Your task to perform on an android device: Open notification settings Image 0: 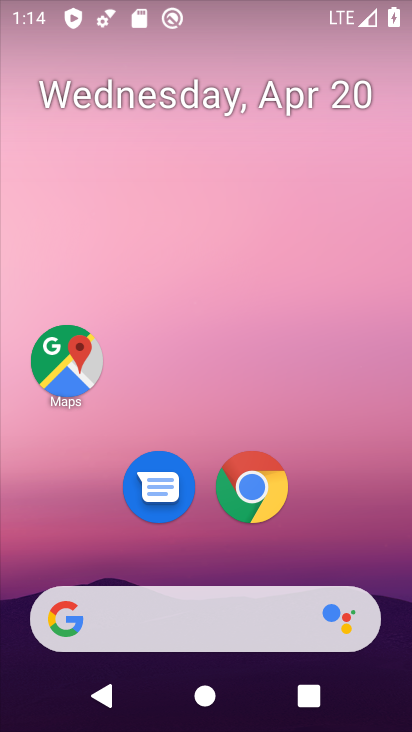
Step 0: drag from (371, 558) to (248, 22)
Your task to perform on an android device: Open notification settings Image 1: 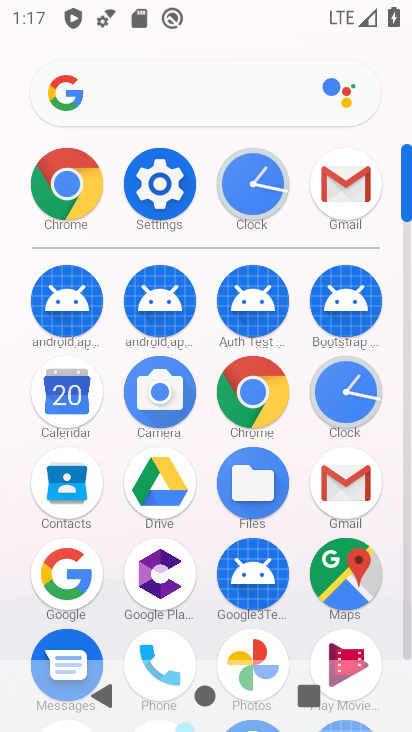
Step 1: click (155, 181)
Your task to perform on an android device: Open notification settings Image 2: 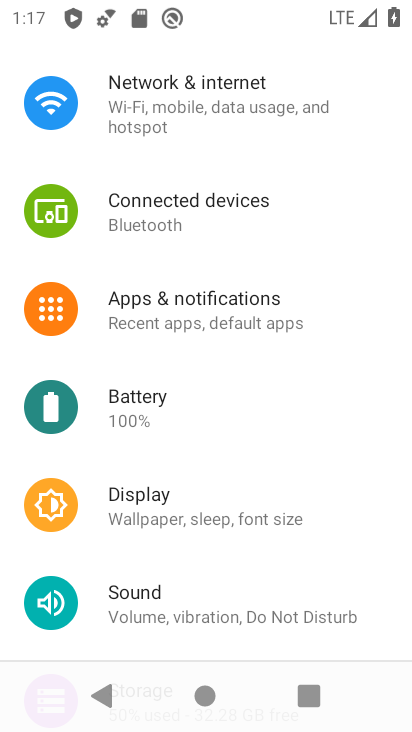
Step 2: drag from (151, 621) to (232, 319)
Your task to perform on an android device: Open notification settings Image 3: 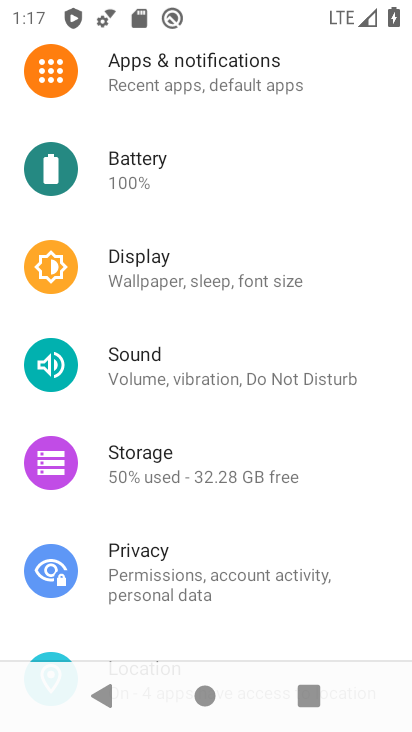
Step 3: click (245, 96)
Your task to perform on an android device: Open notification settings Image 4: 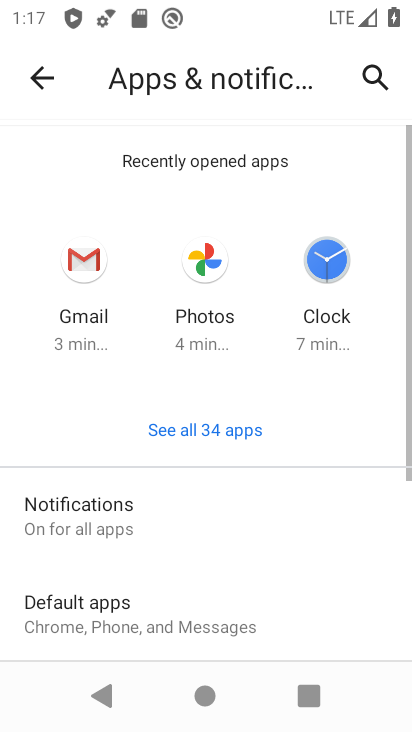
Step 4: task complete